Your task to perform on an android device: What is the news today? Image 0: 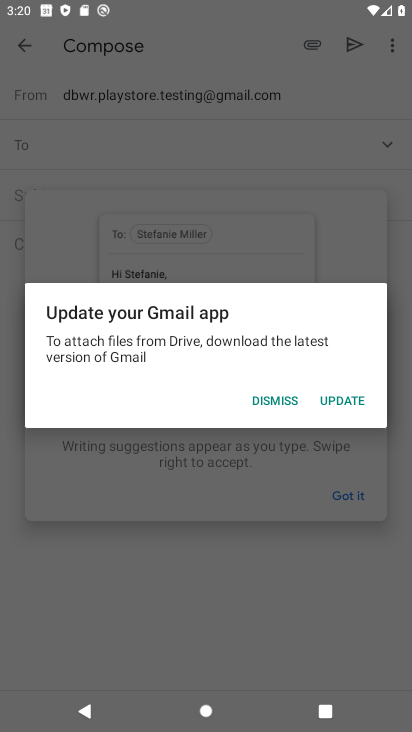
Step 0: press home button
Your task to perform on an android device: What is the news today? Image 1: 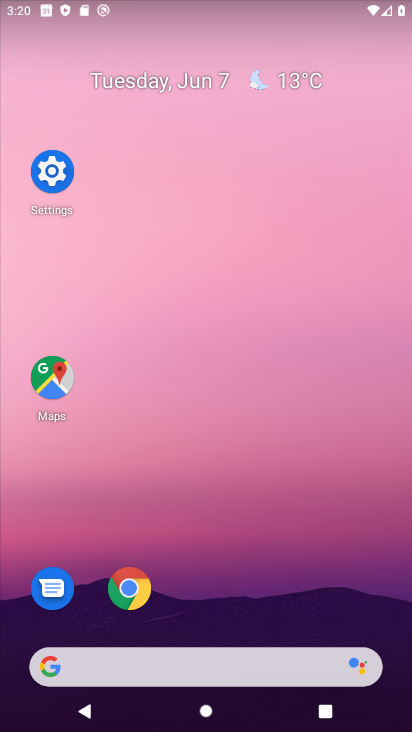
Step 1: drag from (251, 577) to (221, 144)
Your task to perform on an android device: What is the news today? Image 2: 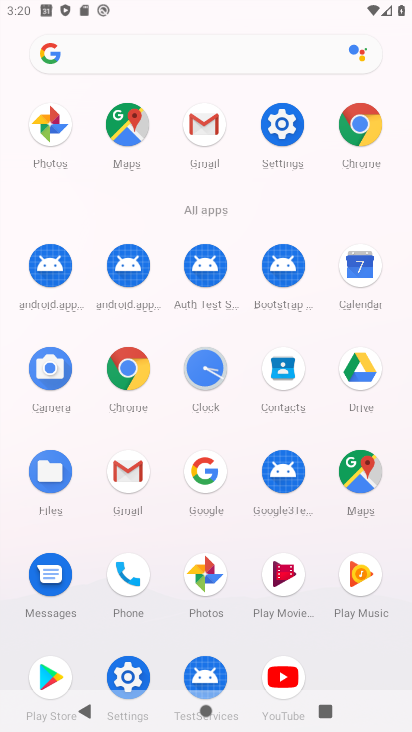
Step 2: drag from (201, 464) to (155, 373)
Your task to perform on an android device: What is the news today? Image 3: 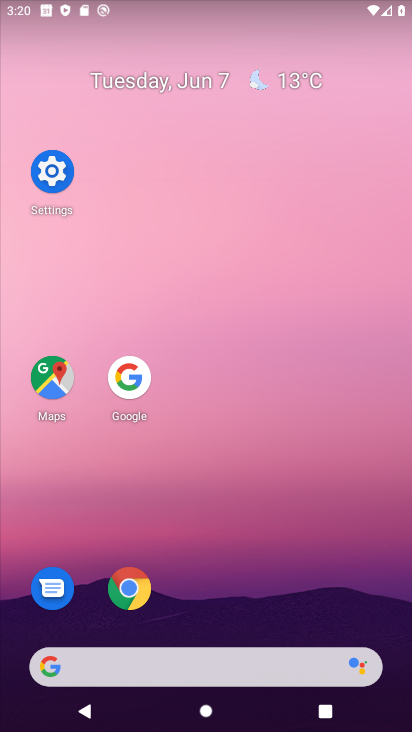
Step 3: click (135, 374)
Your task to perform on an android device: What is the news today? Image 4: 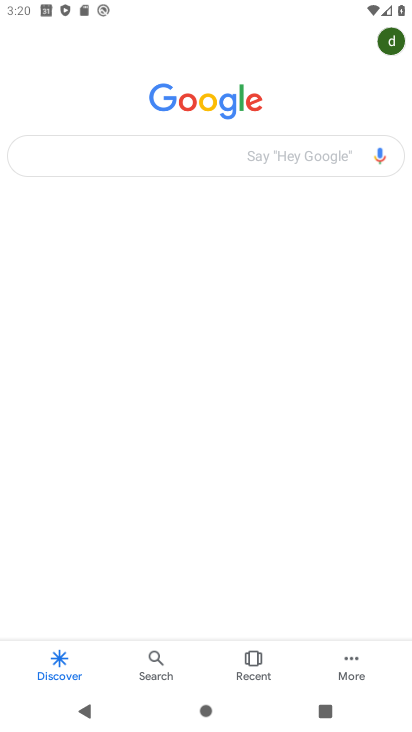
Step 4: click (182, 165)
Your task to perform on an android device: What is the news today? Image 5: 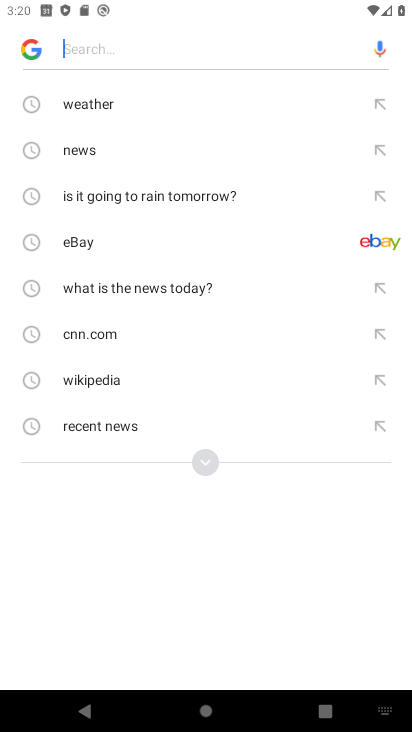
Step 5: click (96, 159)
Your task to perform on an android device: What is the news today? Image 6: 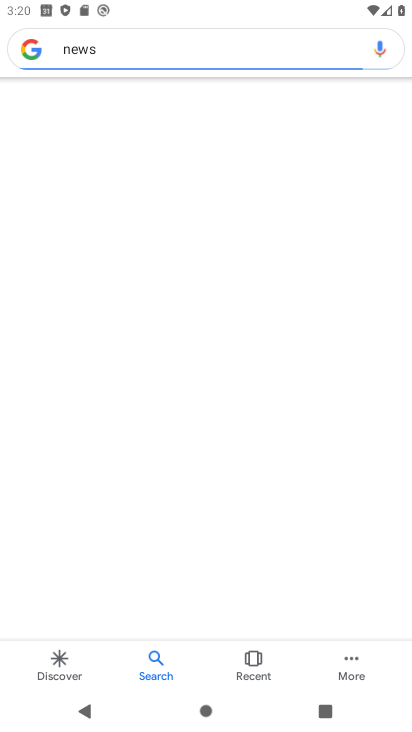
Step 6: task complete